Your task to perform on an android device: Is it going to rain tomorrow? Image 0: 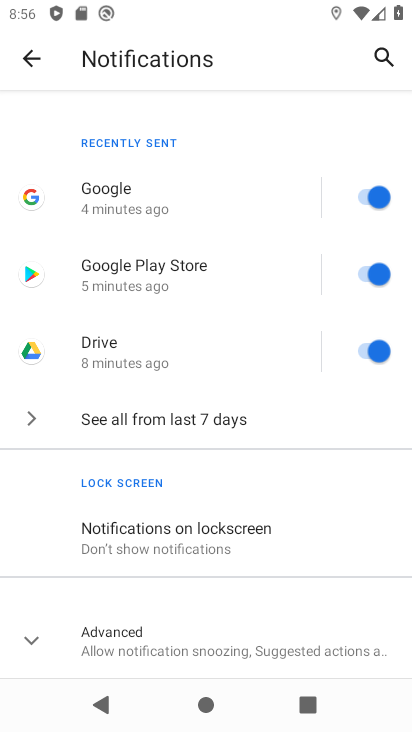
Step 0: press home button
Your task to perform on an android device: Is it going to rain tomorrow? Image 1: 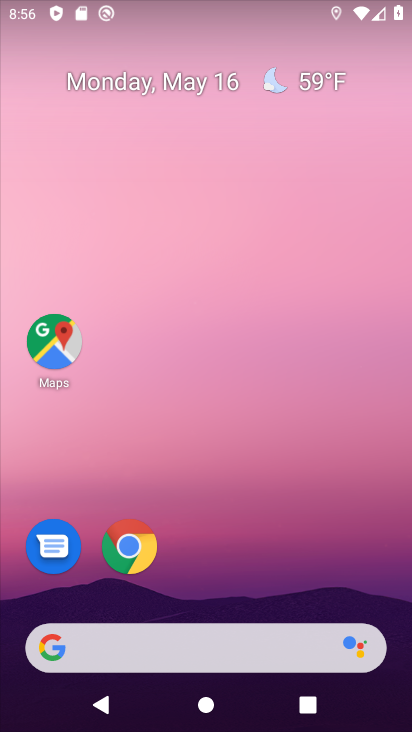
Step 1: click (320, 91)
Your task to perform on an android device: Is it going to rain tomorrow? Image 2: 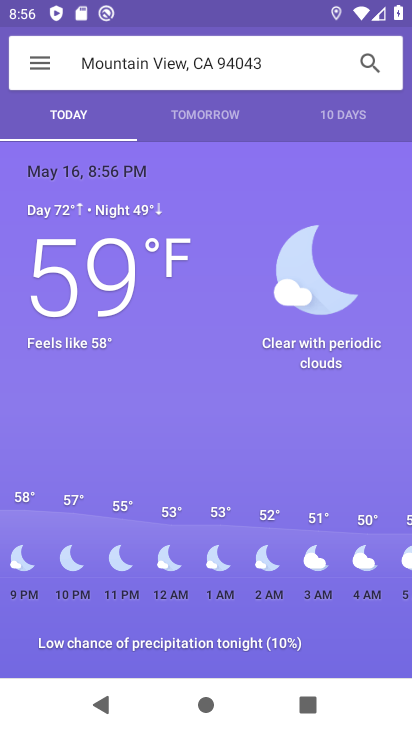
Step 2: click (226, 114)
Your task to perform on an android device: Is it going to rain tomorrow? Image 3: 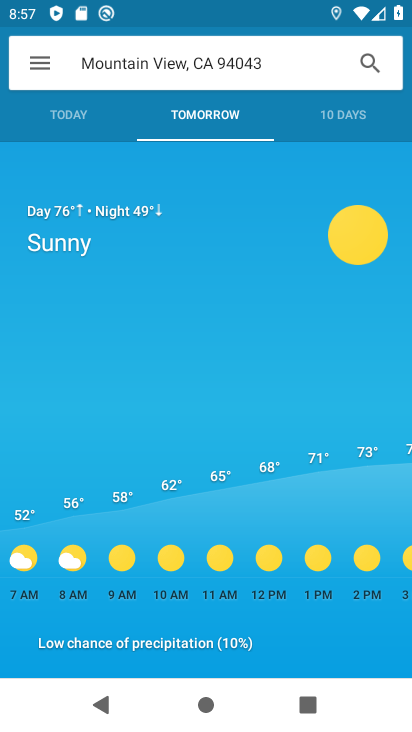
Step 3: task complete